Your task to perform on an android device: change keyboard looks Image 0: 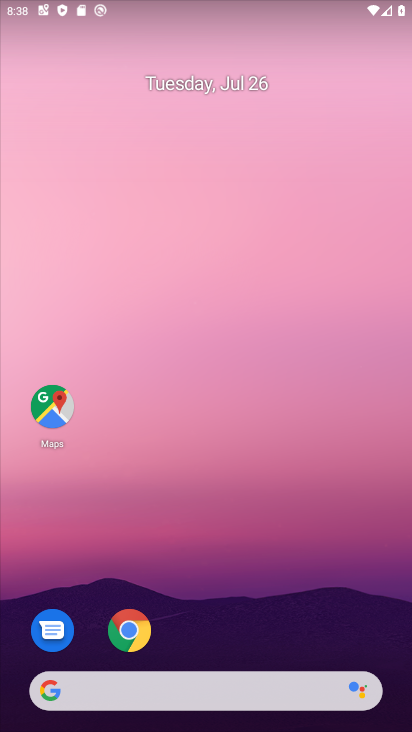
Step 0: drag from (291, 659) to (215, 174)
Your task to perform on an android device: change keyboard looks Image 1: 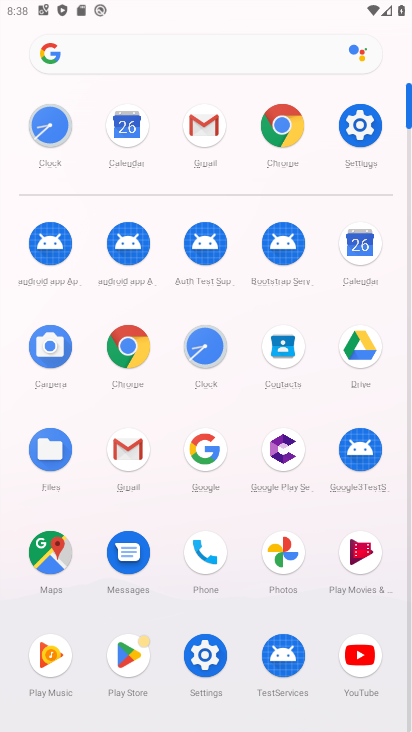
Step 1: click (209, 669)
Your task to perform on an android device: change keyboard looks Image 2: 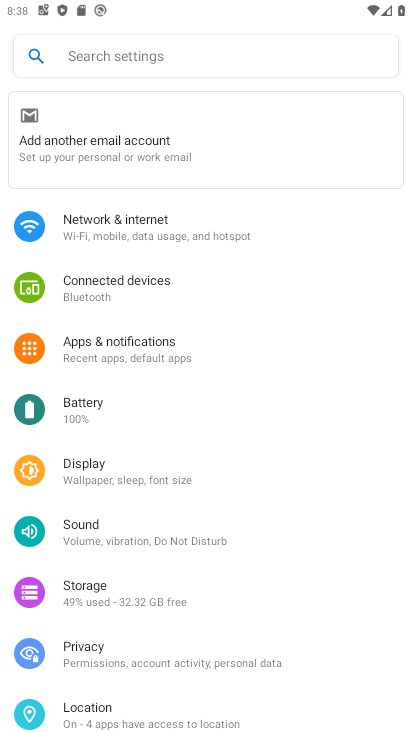
Step 2: drag from (207, 706) to (261, 113)
Your task to perform on an android device: change keyboard looks Image 3: 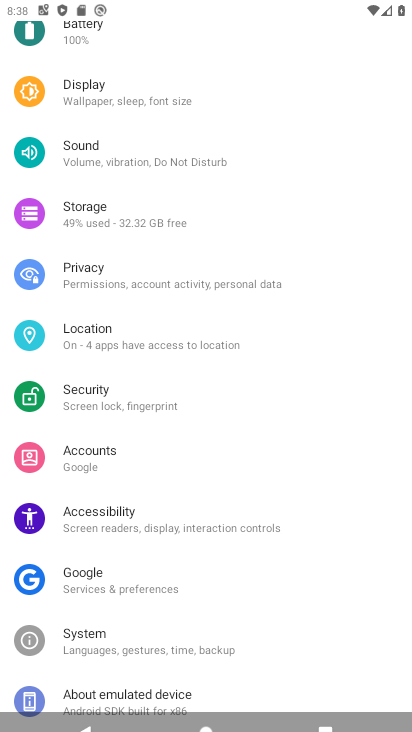
Step 3: click (197, 631)
Your task to perform on an android device: change keyboard looks Image 4: 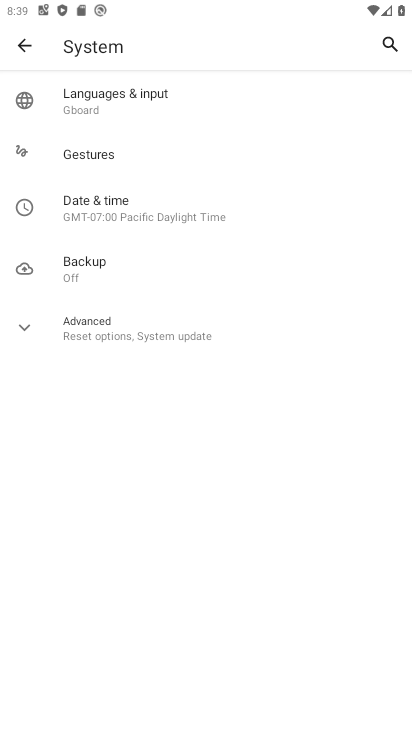
Step 4: click (151, 109)
Your task to perform on an android device: change keyboard looks Image 5: 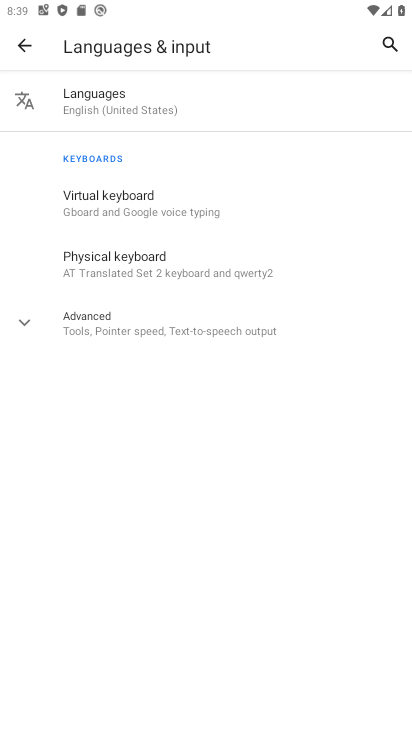
Step 5: click (136, 195)
Your task to perform on an android device: change keyboard looks Image 6: 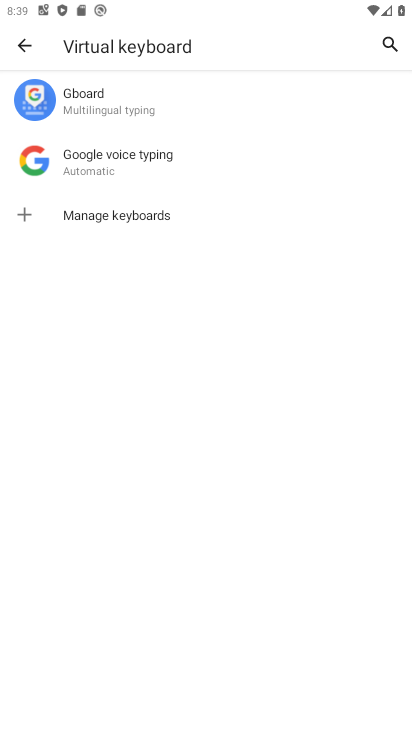
Step 6: click (193, 114)
Your task to perform on an android device: change keyboard looks Image 7: 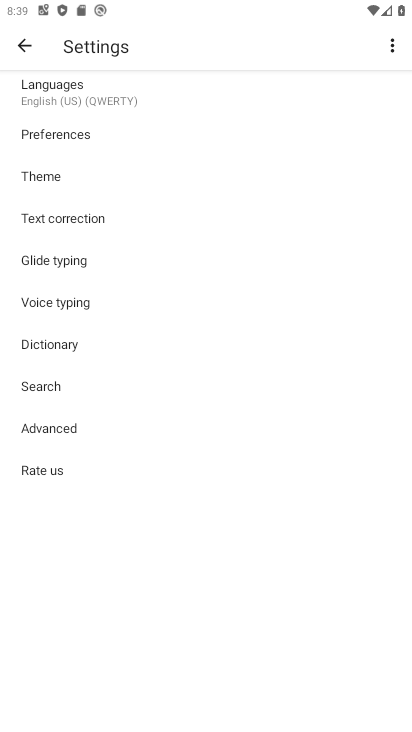
Step 7: click (44, 104)
Your task to perform on an android device: change keyboard looks Image 8: 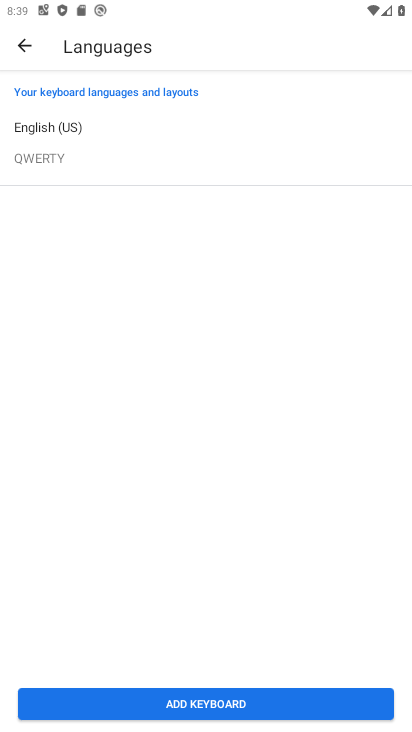
Step 8: task complete